Your task to perform on an android device: add a contact Image 0: 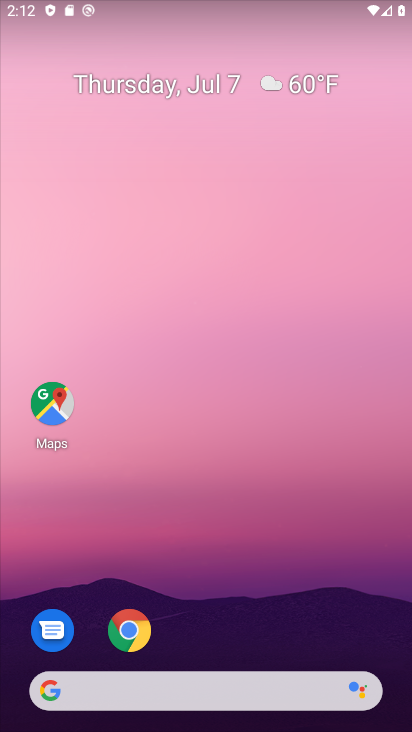
Step 0: drag from (217, 567) to (160, 99)
Your task to perform on an android device: add a contact Image 1: 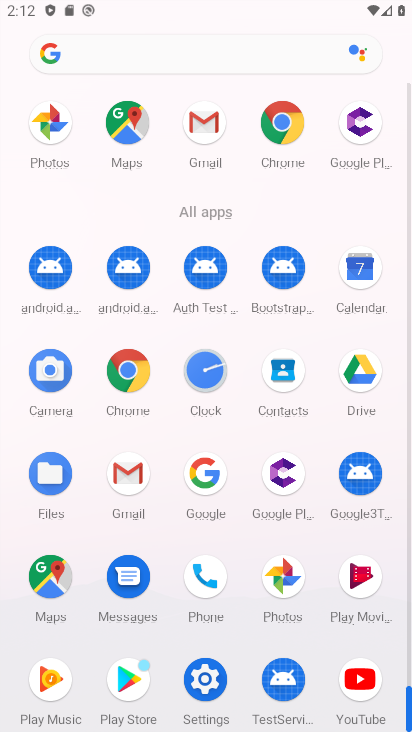
Step 1: click (287, 379)
Your task to perform on an android device: add a contact Image 2: 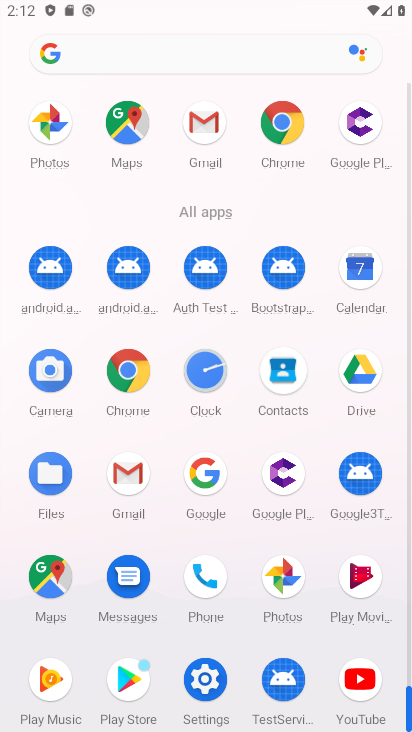
Step 2: click (286, 380)
Your task to perform on an android device: add a contact Image 3: 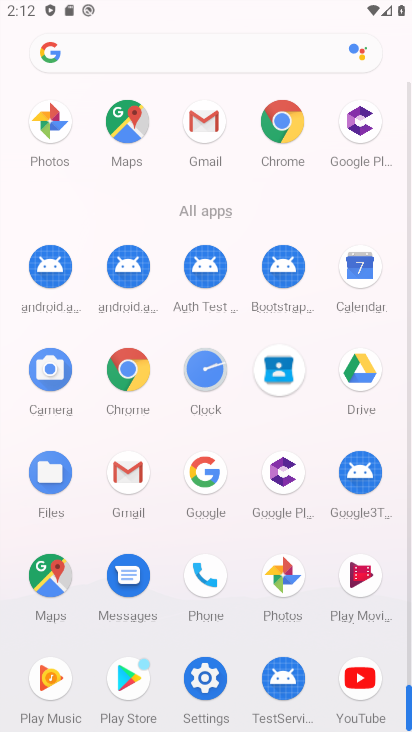
Step 3: click (286, 381)
Your task to perform on an android device: add a contact Image 4: 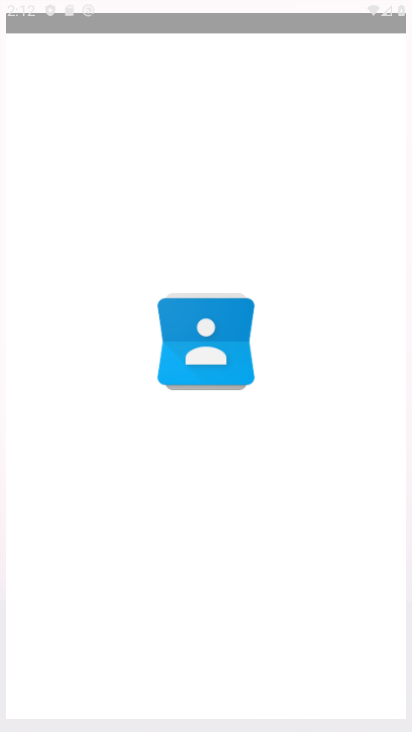
Step 4: click (287, 382)
Your task to perform on an android device: add a contact Image 5: 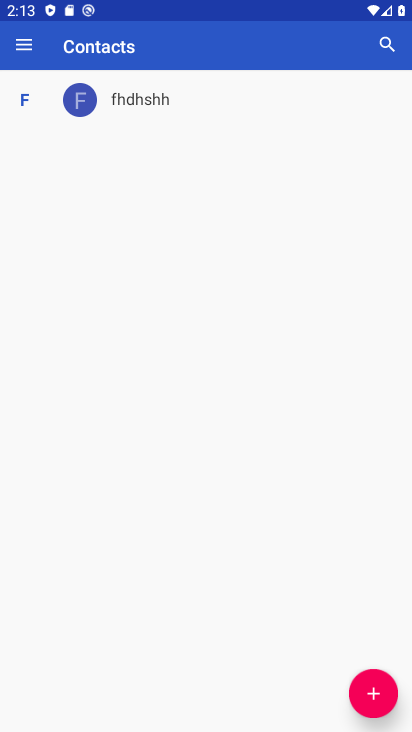
Step 5: press back button
Your task to perform on an android device: add a contact Image 6: 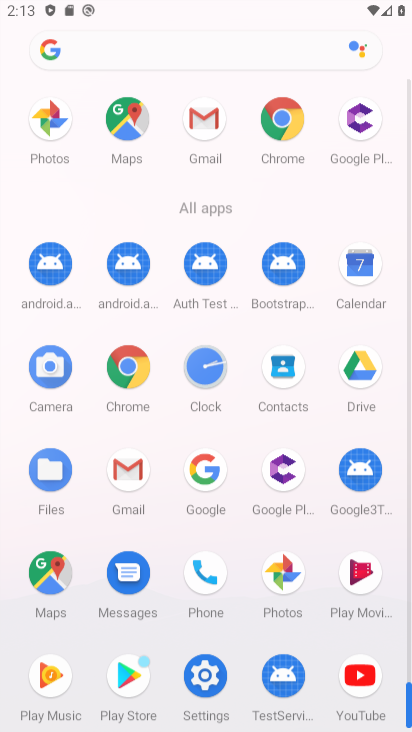
Step 6: press home button
Your task to perform on an android device: add a contact Image 7: 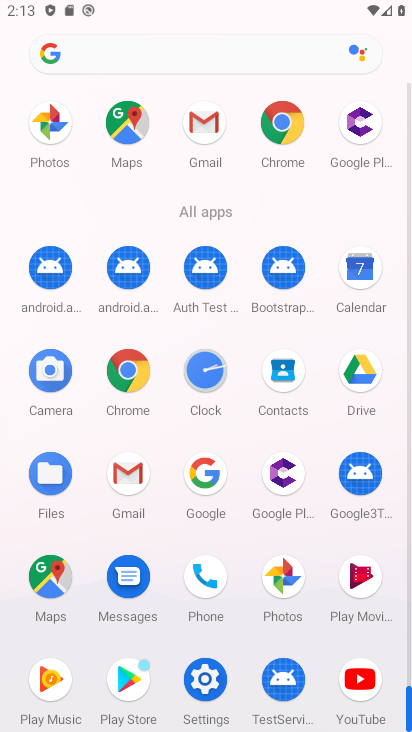
Step 7: press home button
Your task to perform on an android device: add a contact Image 8: 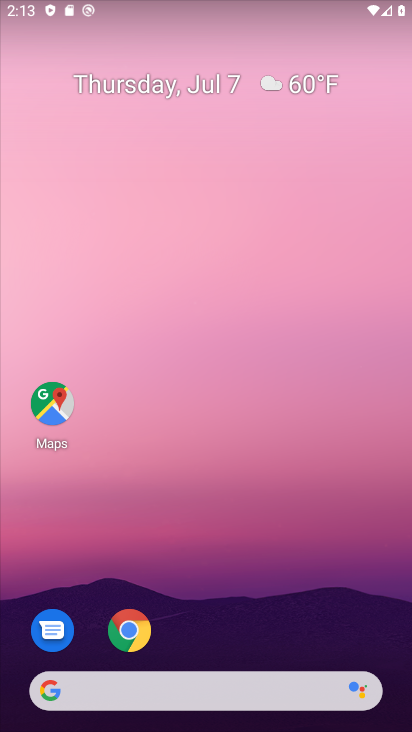
Step 8: press home button
Your task to perform on an android device: add a contact Image 9: 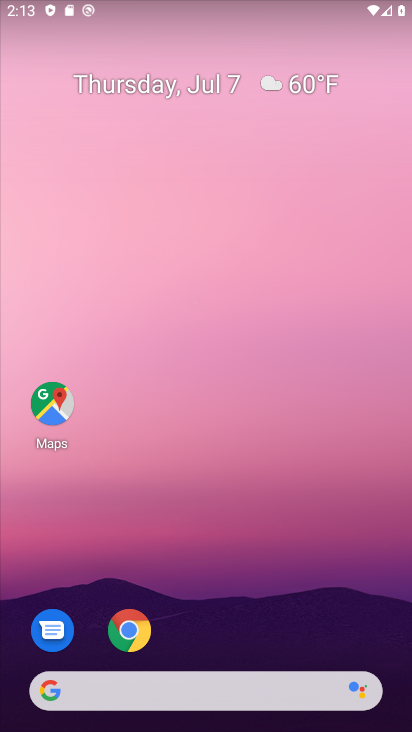
Step 9: click (112, 323)
Your task to perform on an android device: add a contact Image 10: 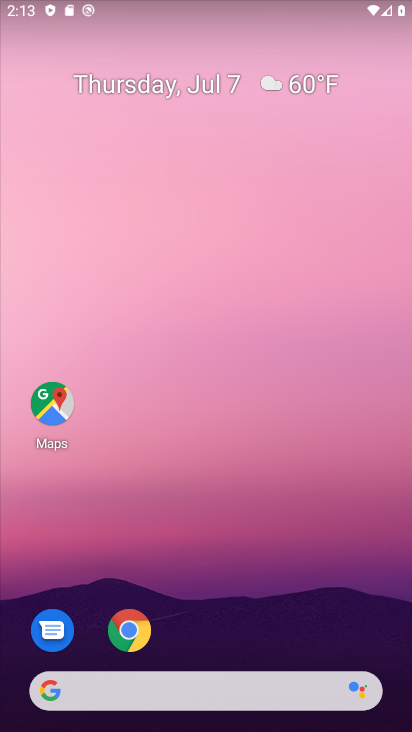
Step 10: click (102, 108)
Your task to perform on an android device: add a contact Image 11: 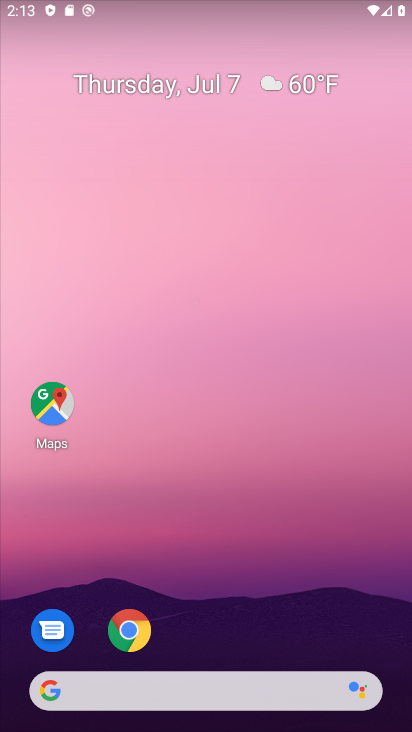
Step 11: drag from (274, 633) to (112, 132)
Your task to perform on an android device: add a contact Image 12: 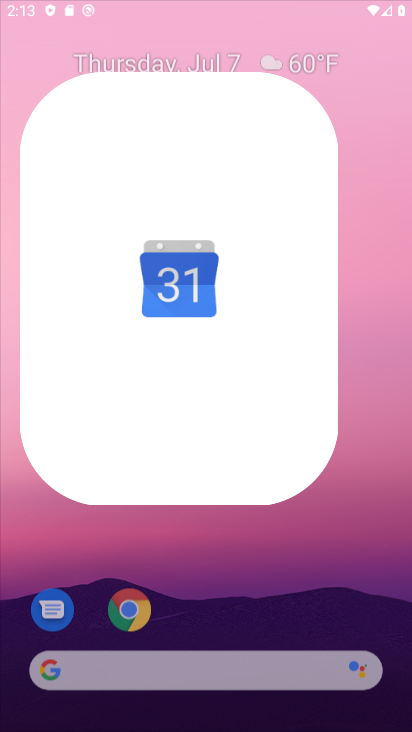
Step 12: drag from (155, 581) to (80, 126)
Your task to perform on an android device: add a contact Image 13: 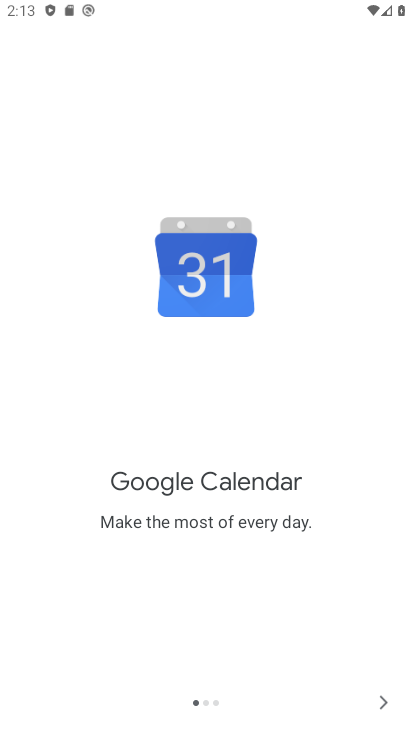
Step 13: press back button
Your task to perform on an android device: add a contact Image 14: 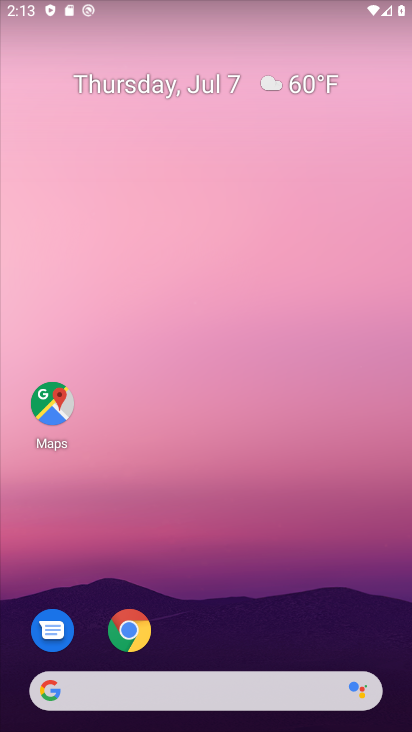
Step 14: drag from (263, 628) to (118, 197)
Your task to perform on an android device: add a contact Image 15: 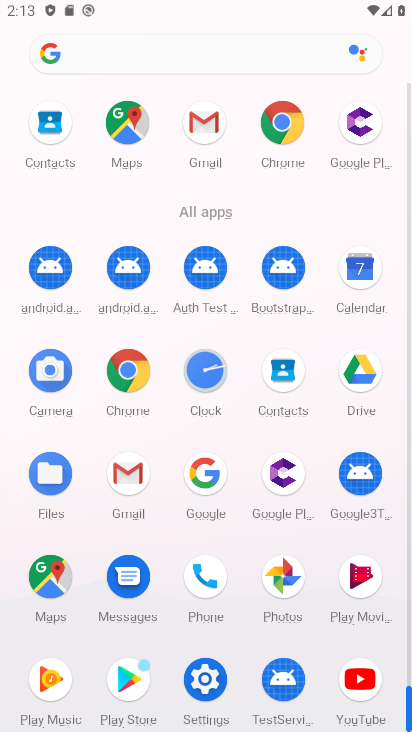
Step 15: click (275, 370)
Your task to perform on an android device: add a contact Image 16: 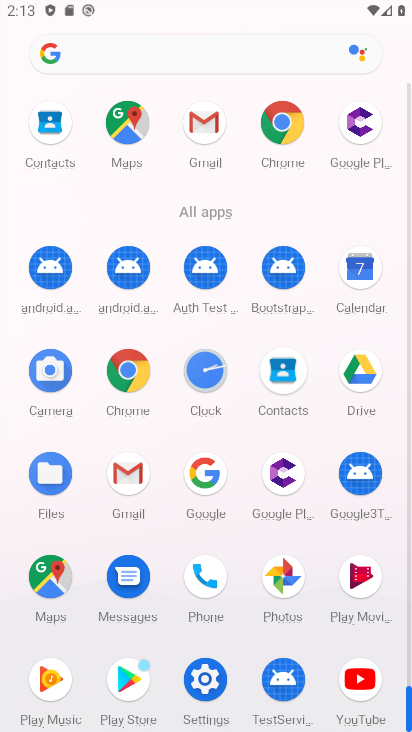
Step 16: click (275, 370)
Your task to perform on an android device: add a contact Image 17: 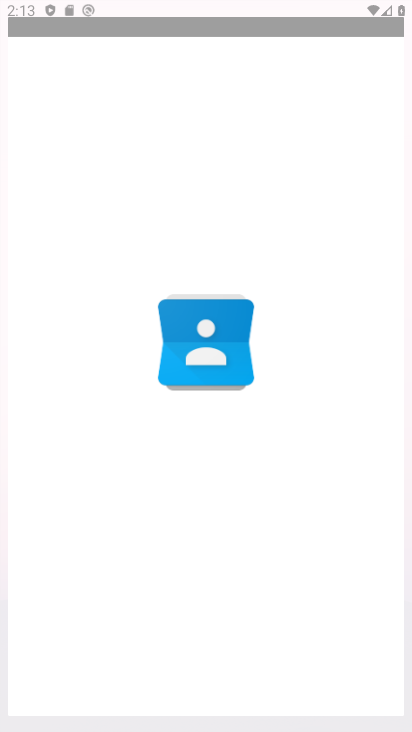
Step 17: click (278, 369)
Your task to perform on an android device: add a contact Image 18: 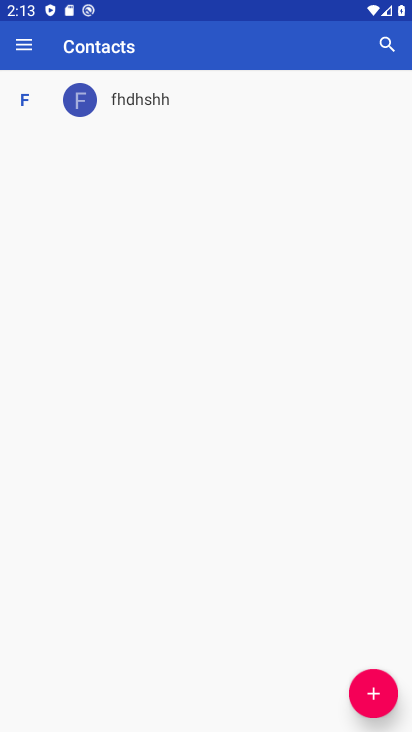
Step 18: click (369, 682)
Your task to perform on an android device: add a contact Image 19: 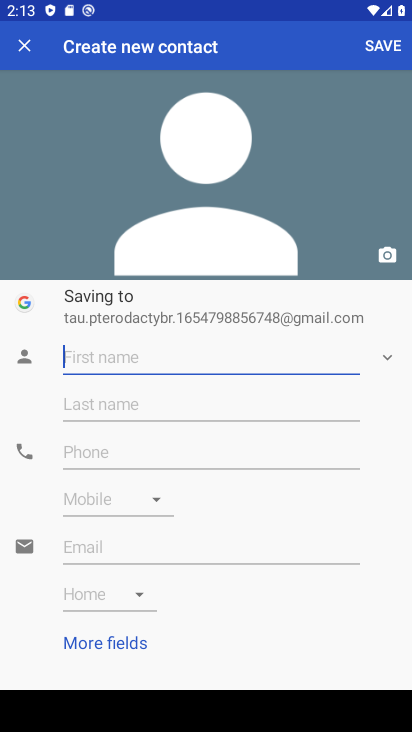
Step 19: type "bcjhdbsjh"
Your task to perform on an android device: add a contact Image 20: 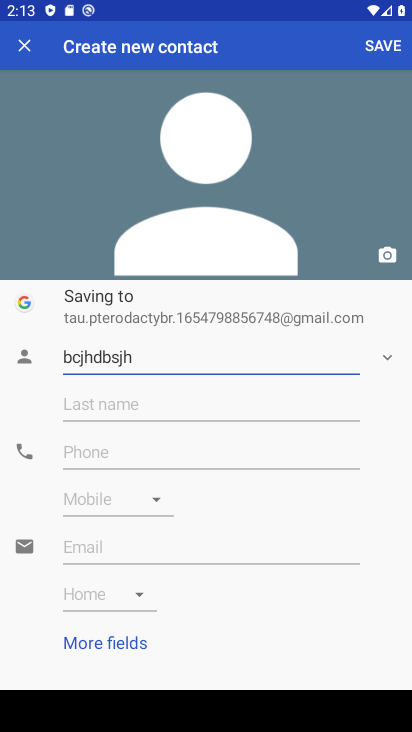
Step 20: click (83, 448)
Your task to perform on an android device: add a contact Image 21: 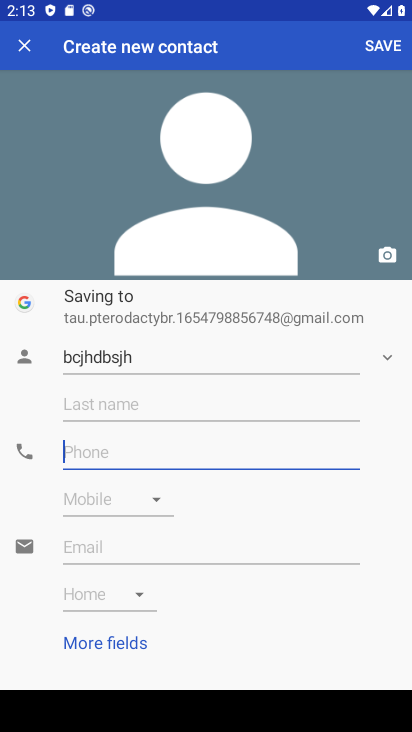
Step 21: click (83, 448)
Your task to perform on an android device: add a contact Image 22: 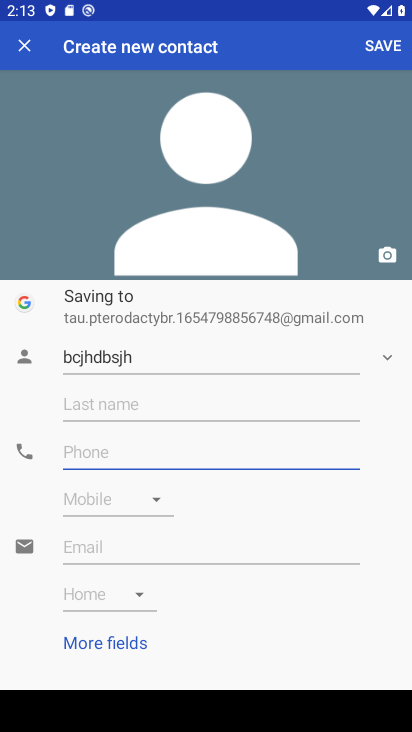
Step 22: click (83, 448)
Your task to perform on an android device: add a contact Image 23: 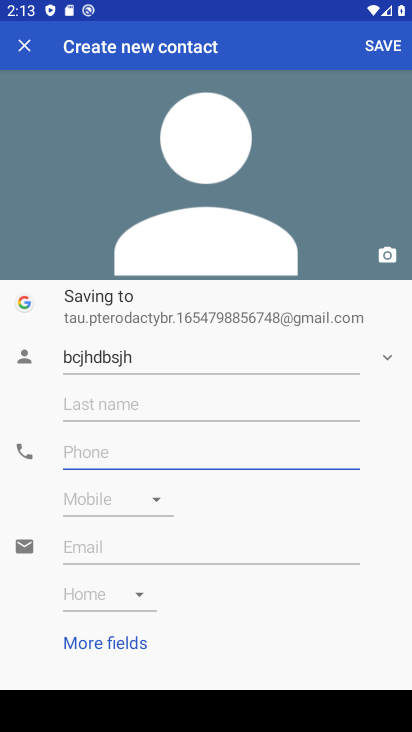
Step 23: click (83, 448)
Your task to perform on an android device: add a contact Image 24: 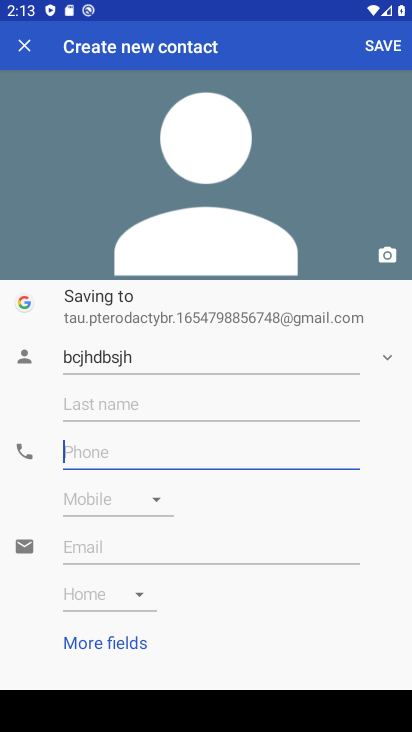
Step 24: type "7834783476"
Your task to perform on an android device: add a contact Image 25: 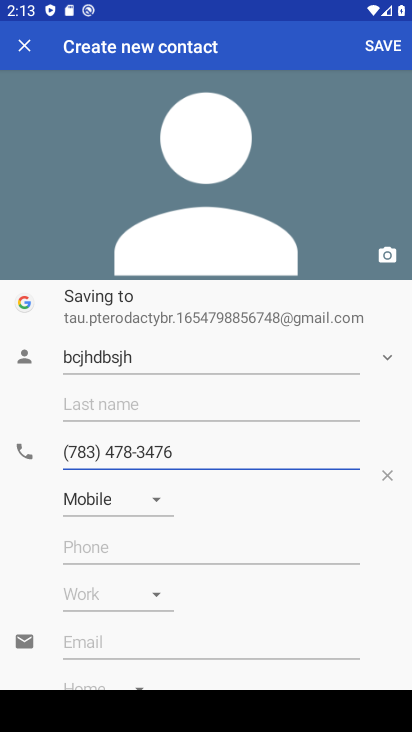
Step 25: click (381, 48)
Your task to perform on an android device: add a contact Image 26: 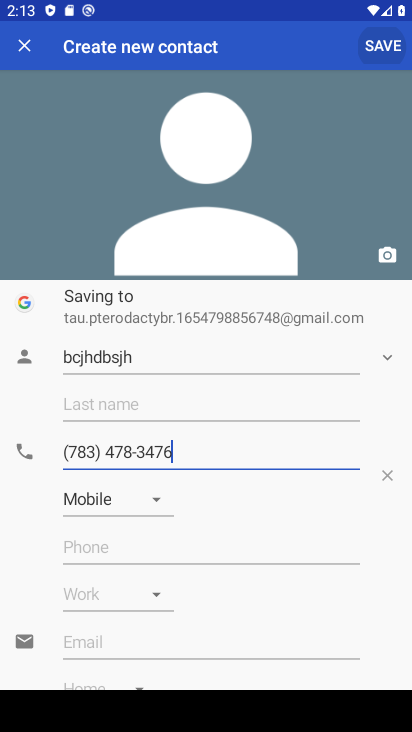
Step 26: click (404, 48)
Your task to perform on an android device: add a contact Image 27: 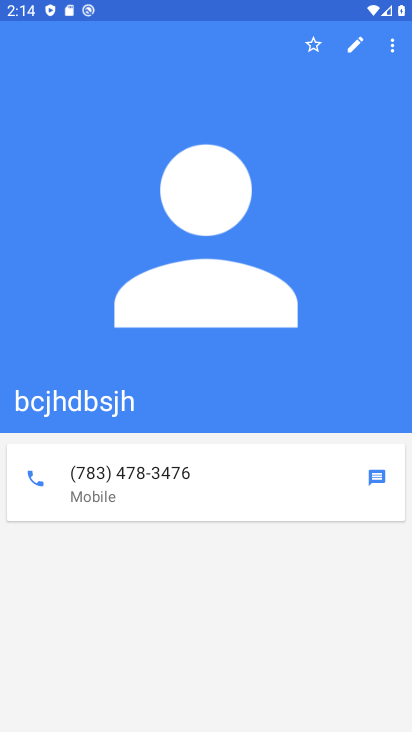
Step 27: task complete